Your task to perform on an android device: clear all cookies in the chrome app Image 0: 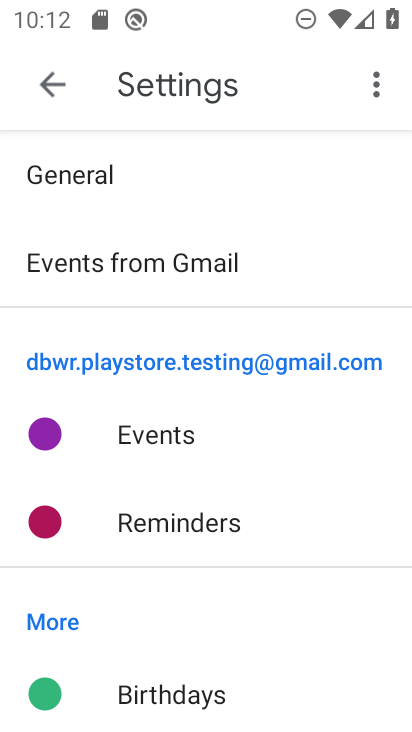
Step 0: press home button
Your task to perform on an android device: clear all cookies in the chrome app Image 1: 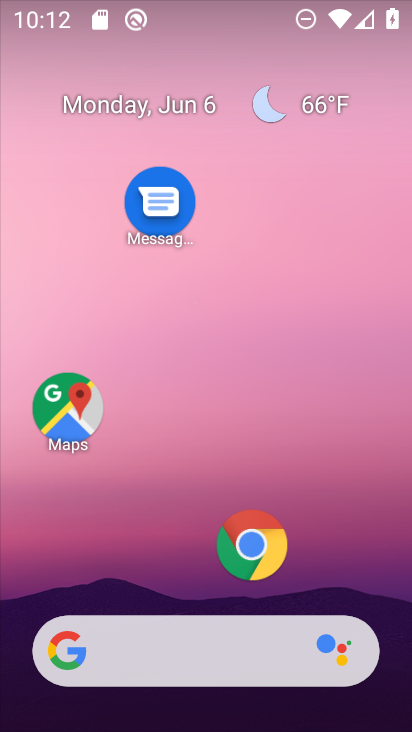
Step 1: drag from (216, 546) to (318, 147)
Your task to perform on an android device: clear all cookies in the chrome app Image 2: 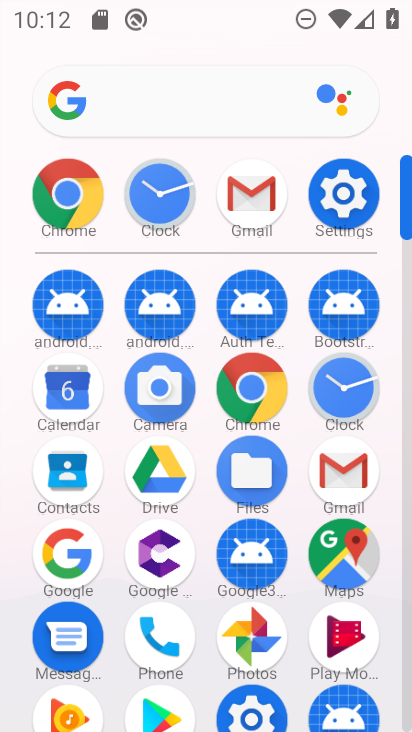
Step 2: click (65, 198)
Your task to perform on an android device: clear all cookies in the chrome app Image 3: 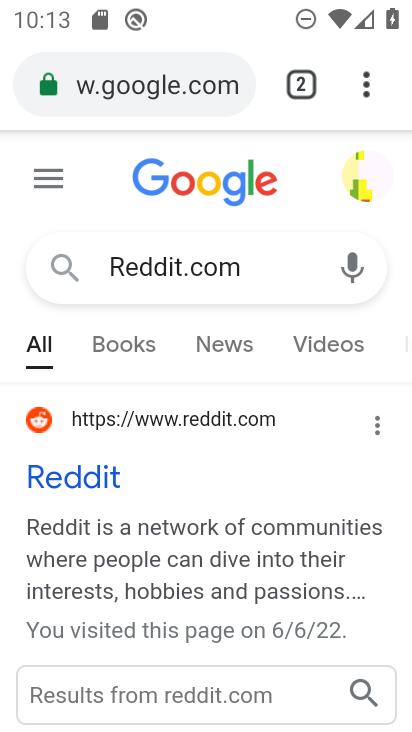
Step 3: click (366, 83)
Your task to perform on an android device: clear all cookies in the chrome app Image 4: 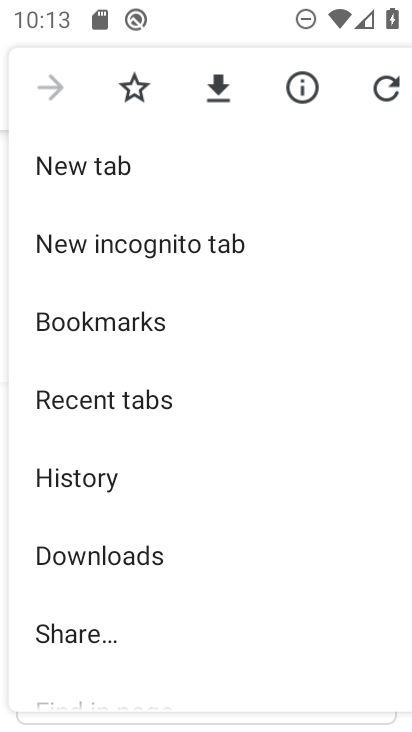
Step 4: click (85, 469)
Your task to perform on an android device: clear all cookies in the chrome app Image 5: 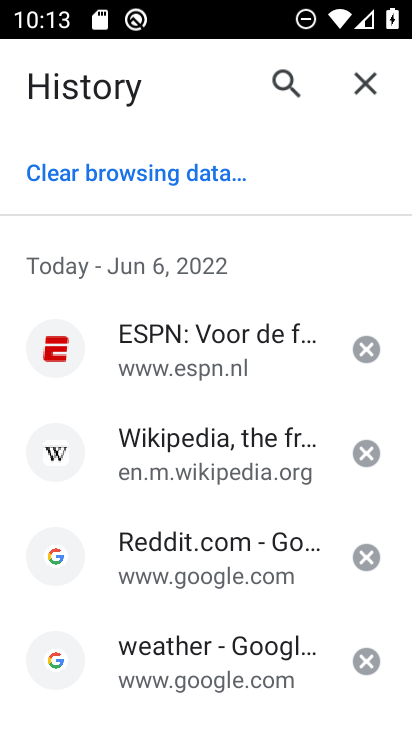
Step 5: click (179, 180)
Your task to perform on an android device: clear all cookies in the chrome app Image 6: 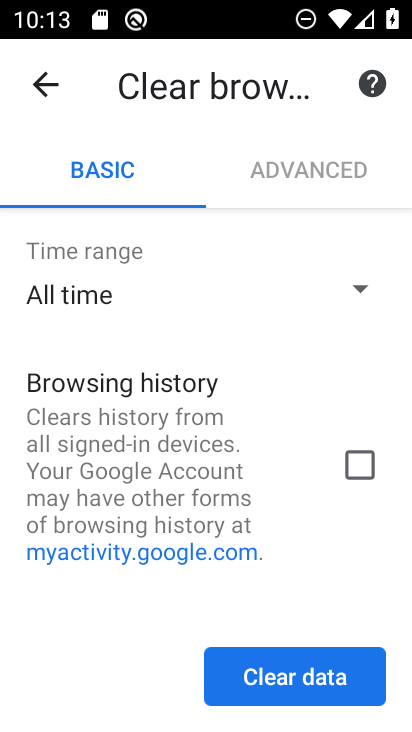
Step 6: click (326, 189)
Your task to perform on an android device: clear all cookies in the chrome app Image 7: 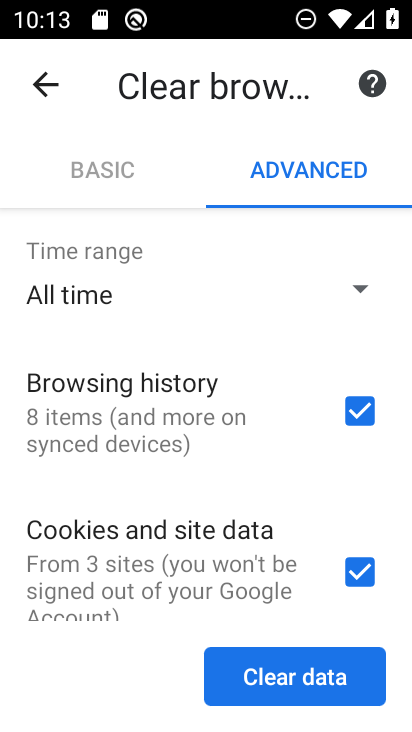
Step 7: click (355, 403)
Your task to perform on an android device: clear all cookies in the chrome app Image 8: 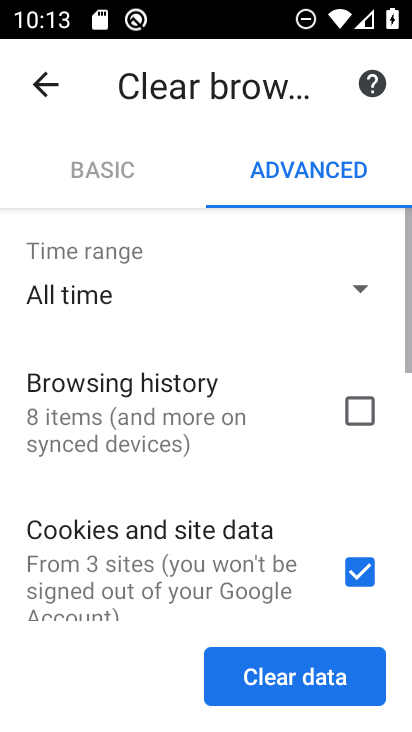
Step 8: drag from (255, 483) to (338, 72)
Your task to perform on an android device: clear all cookies in the chrome app Image 9: 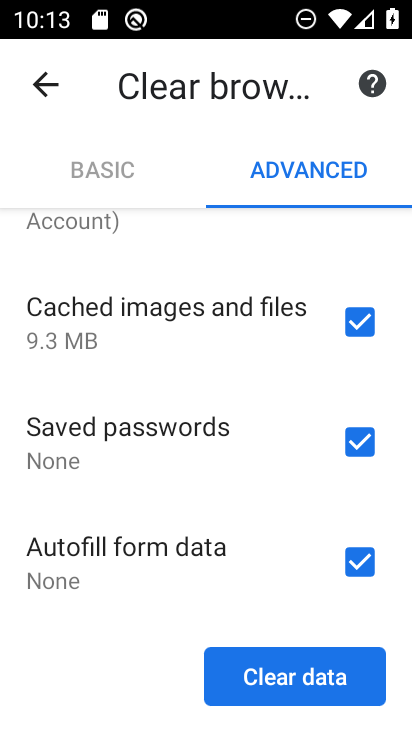
Step 9: click (350, 561)
Your task to perform on an android device: clear all cookies in the chrome app Image 10: 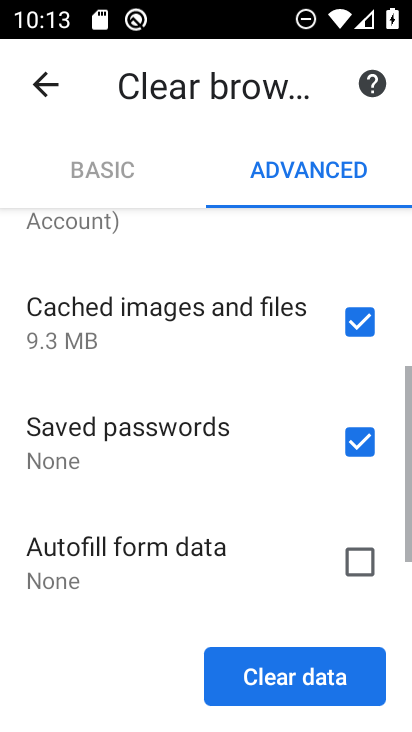
Step 10: click (361, 437)
Your task to perform on an android device: clear all cookies in the chrome app Image 11: 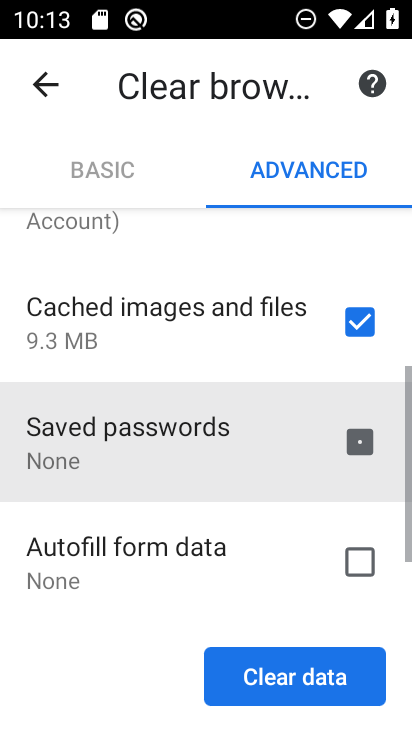
Step 11: click (361, 323)
Your task to perform on an android device: clear all cookies in the chrome app Image 12: 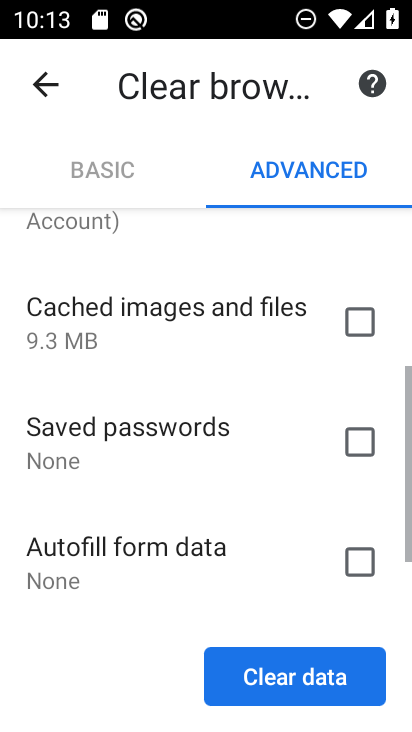
Step 12: drag from (294, 552) to (357, 189)
Your task to perform on an android device: clear all cookies in the chrome app Image 13: 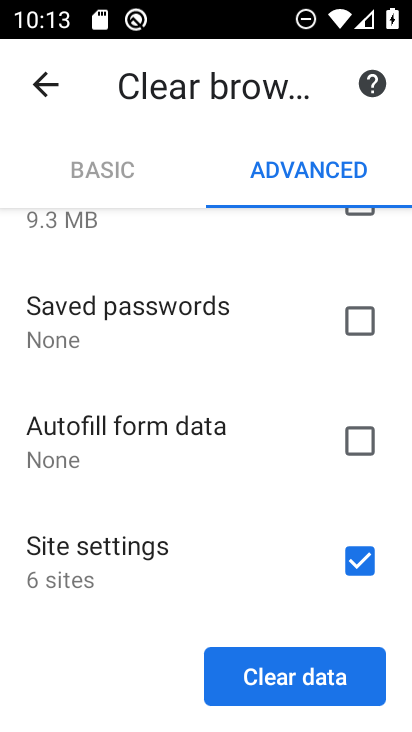
Step 13: click (355, 558)
Your task to perform on an android device: clear all cookies in the chrome app Image 14: 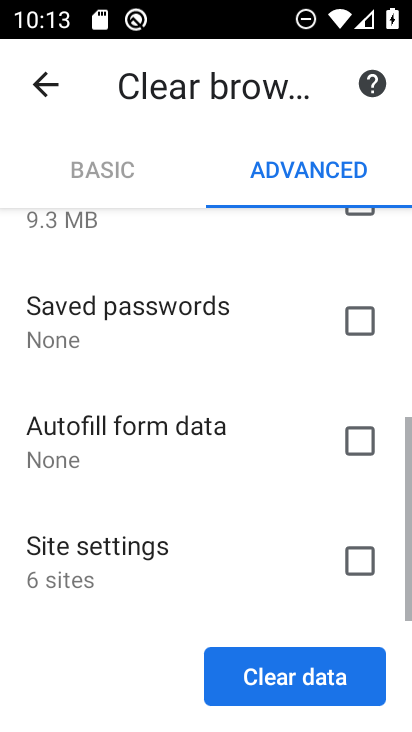
Step 14: drag from (265, 574) to (308, 213)
Your task to perform on an android device: clear all cookies in the chrome app Image 15: 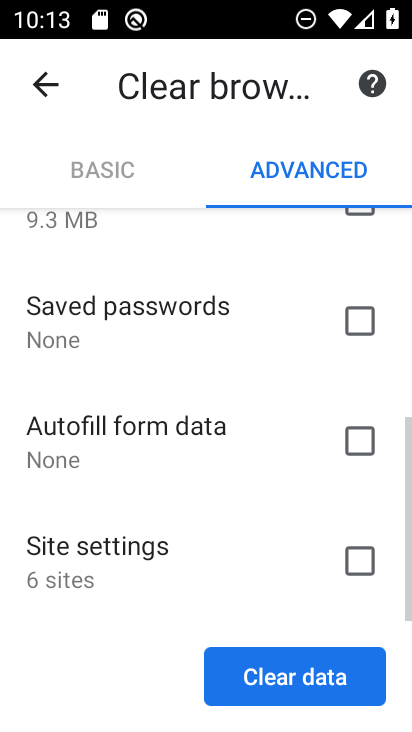
Step 15: click (316, 671)
Your task to perform on an android device: clear all cookies in the chrome app Image 16: 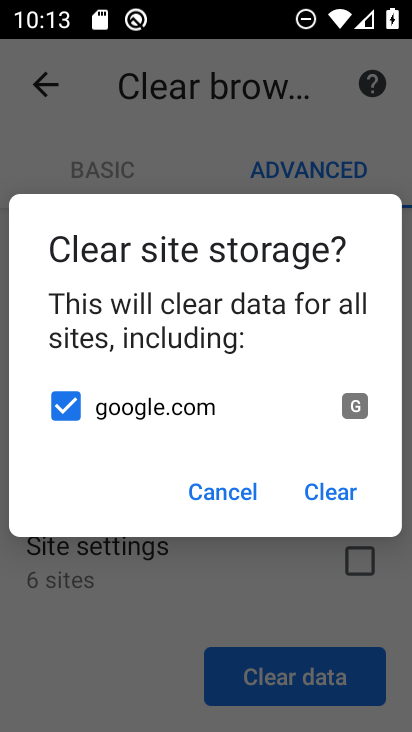
Step 16: click (330, 492)
Your task to perform on an android device: clear all cookies in the chrome app Image 17: 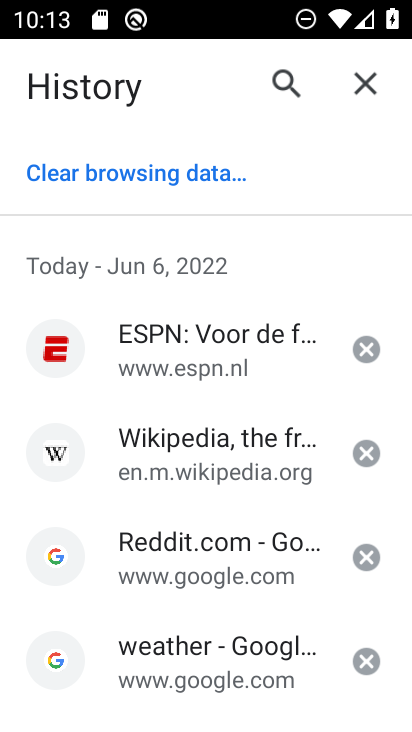
Step 17: task complete